Your task to perform on an android device: Open ESPN.com Image 0: 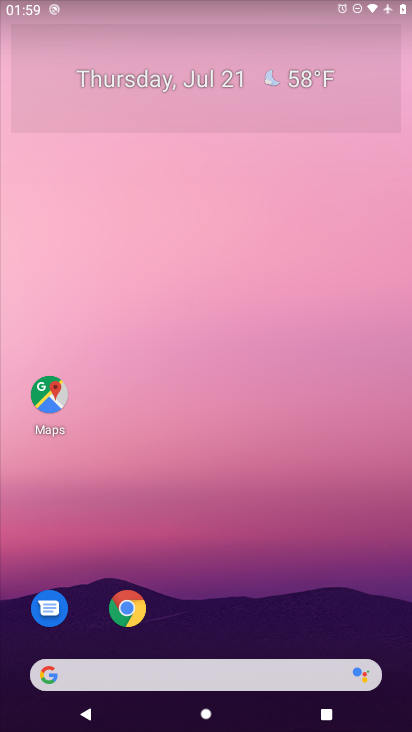
Step 0: press home button
Your task to perform on an android device: Open ESPN.com Image 1: 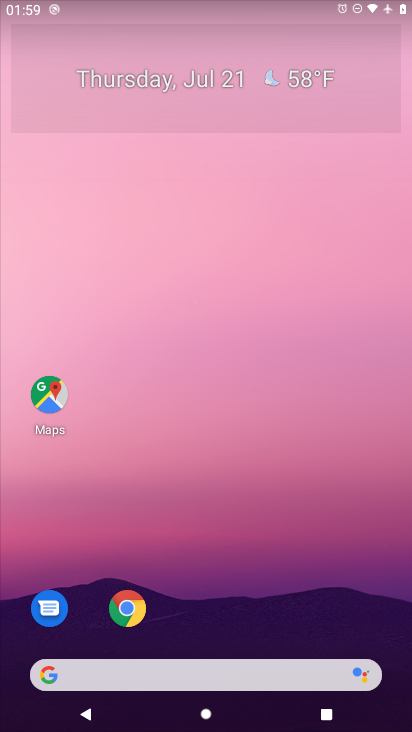
Step 1: click (50, 681)
Your task to perform on an android device: Open ESPN.com Image 2: 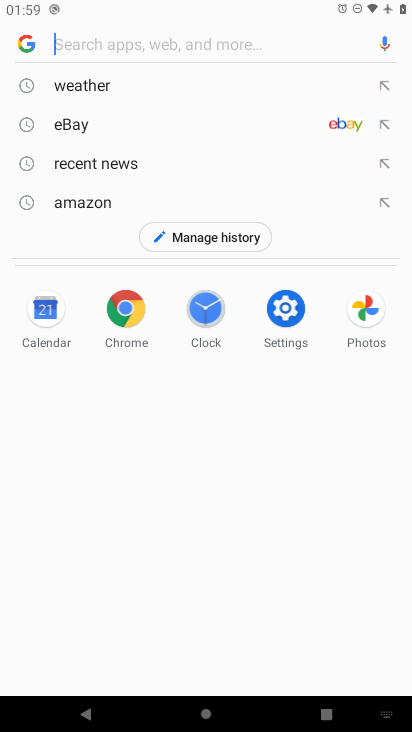
Step 2: type " ESPN.com"
Your task to perform on an android device: Open ESPN.com Image 3: 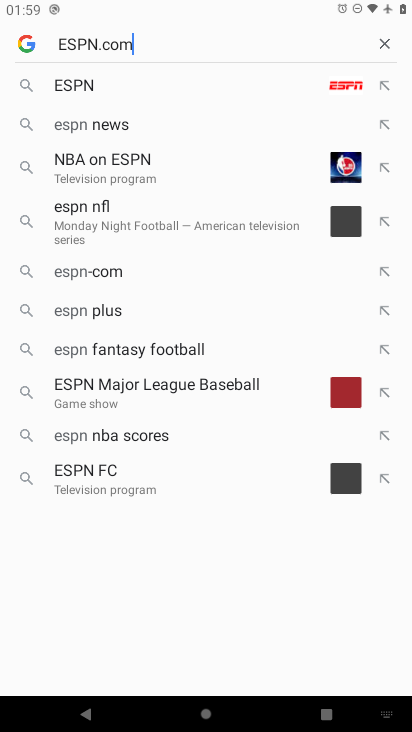
Step 3: press enter
Your task to perform on an android device: Open ESPN.com Image 4: 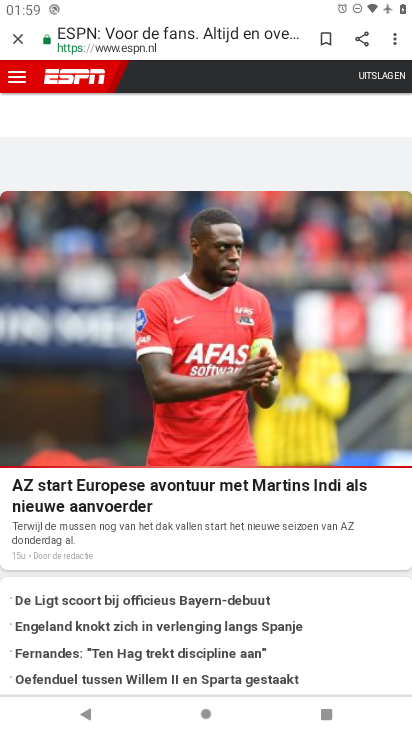
Step 4: task complete